Your task to perform on an android device: turn vacation reply on in the gmail app Image 0: 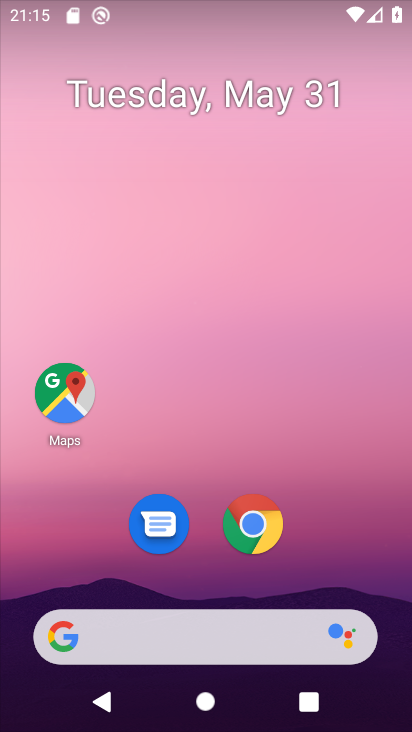
Step 0: drag from (328, 548) to (298, 32)
Your task to perform on an android device: turn vacation reply on in the gmail app Image 1: 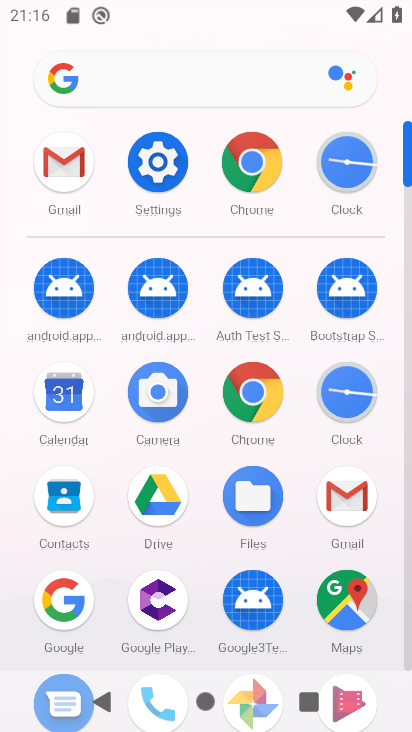
Step 1: click (69, 163)
Your task to perform on an android device: turn vacation reply on in the gmail app Image 2: 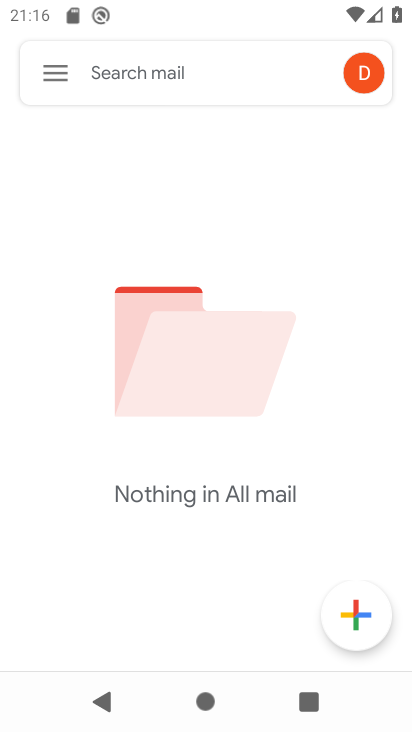
Step 2: click (58, 74)
Your task to perform on an android device: turn vacation reply on in the gmail app Image 3: 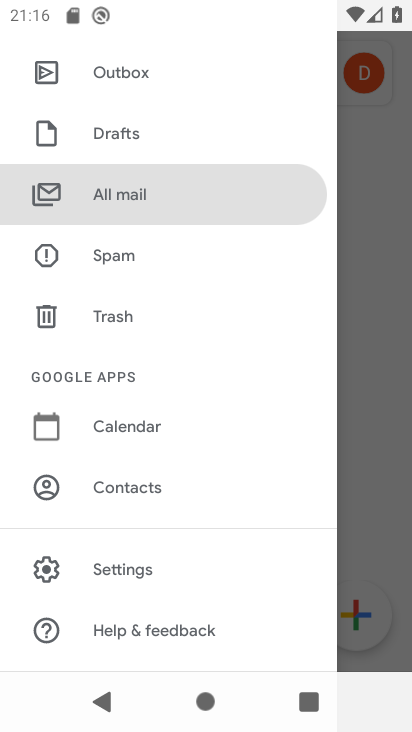
Step 3: click (158, 560)
Your task to perform on an android device: turn vacation reply on in the gmail app Image 4: 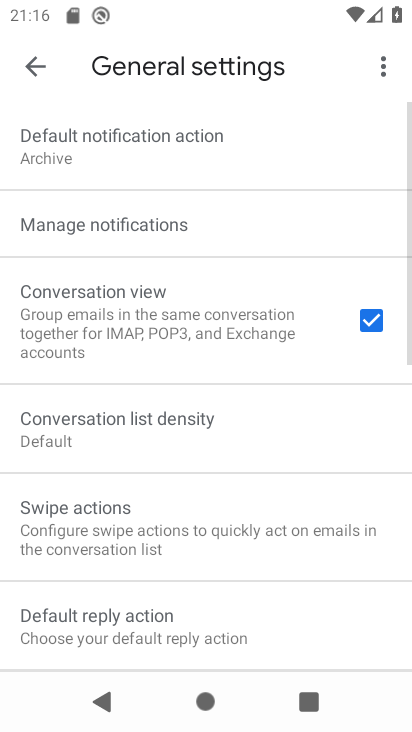
Step 4: drag from (246, 474) to (260, 78)
Your task to perform on an android device: turn vacation reply on in the gmail app Image 5: 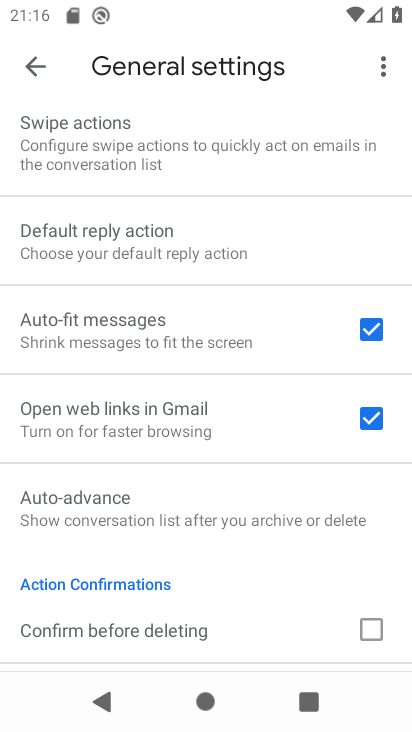
Step 5: click (40, 64)
Your task to perform on an android device: turn vacation reply on in the gmail app Image 6: 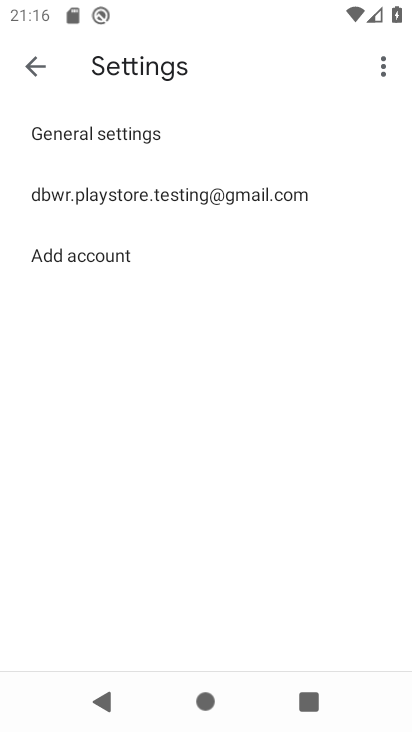
Step 6: click (135, 186)
Your task to perform on an android device: turn vacation reply on in the gmail app Image 7: 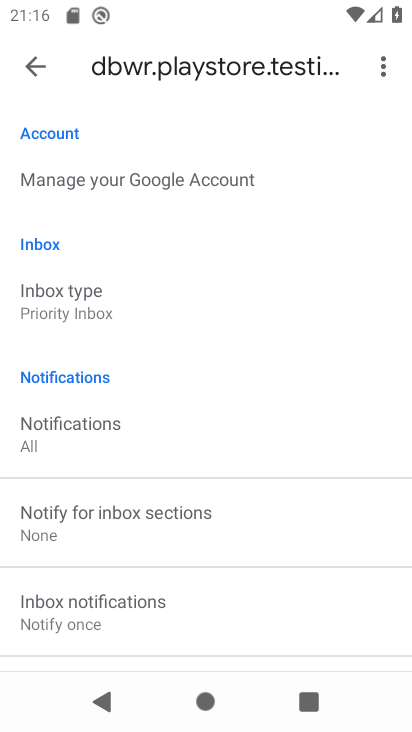
Step 7: drag from (221, 512) to (219, 117)
Your task to perform on an android device: turn vacation reply on in the gmail app Image 8: 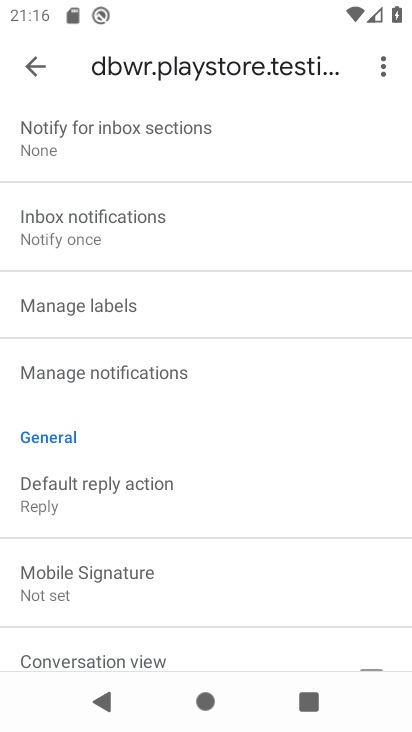
Step 8: drag from (218, 577) to (230, 41)
Your task to perform on an android device: turn vacation reply on in the gmail app Image 9: 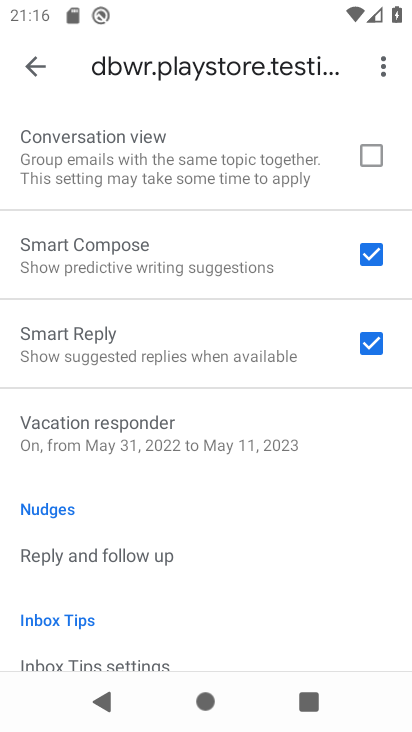
Step 9: click (200, 432)
Your task to perform on an android device: turn vacation reply on in the gmail app Image 10: 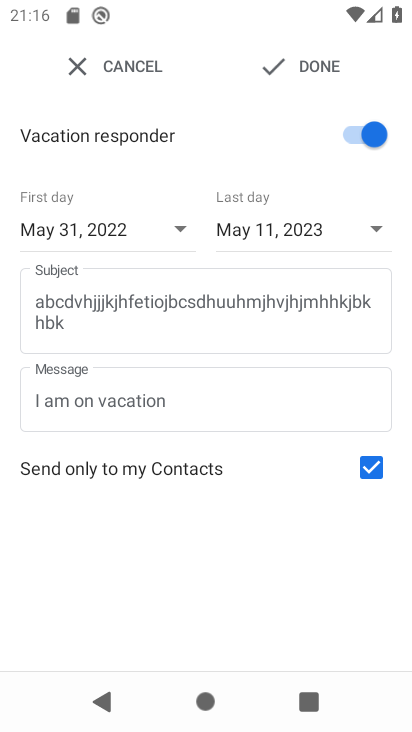
Step 10: task complete